Your task to perform on an android device: Open Chrome and go to the settings page Image 0: 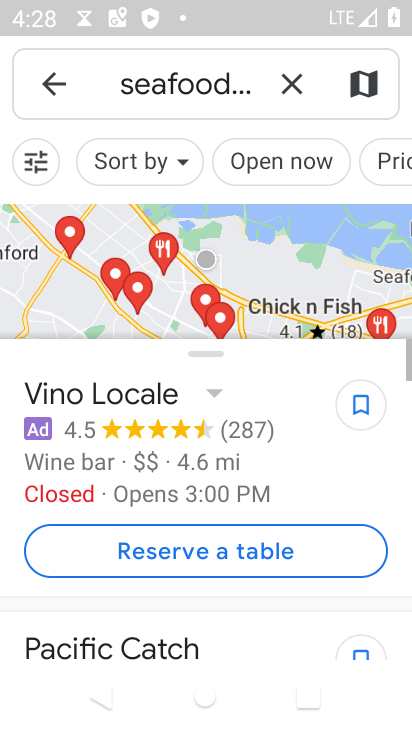
Step 0: press back button
Your task to perform on an android device: Open Chrome and go to the settings page Image 1: 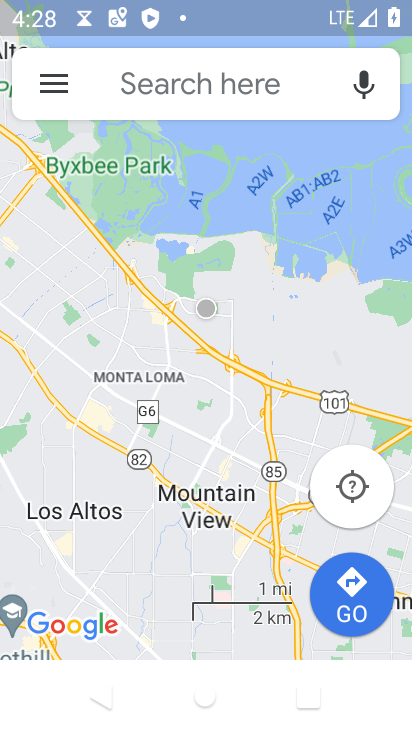
Step 1: press back button
Your task to perform on an android device: Open Chrome and go to the settings page Image 2: 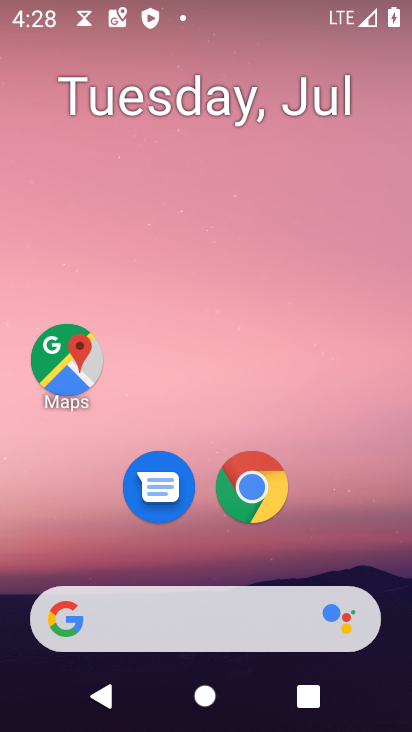
Step 2: click (270, 493)
Your task to perform on an android device: Open Chrome and go to the settings page Image 3: 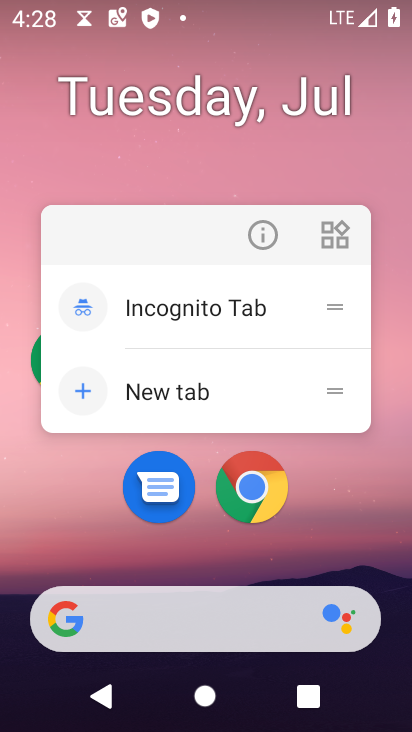
Step 3: click (241, 494)
Your task to perform on an android device: Open Chrome and go to the settings page Image 4: 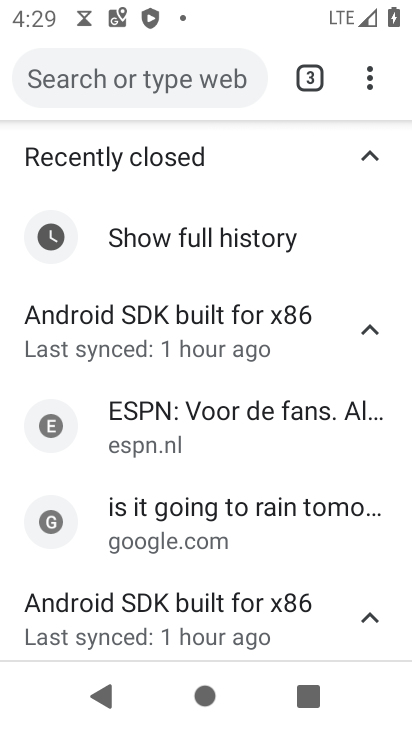
Step 4: task complete